Your task to perform on an android device: See recent photos Image 0: 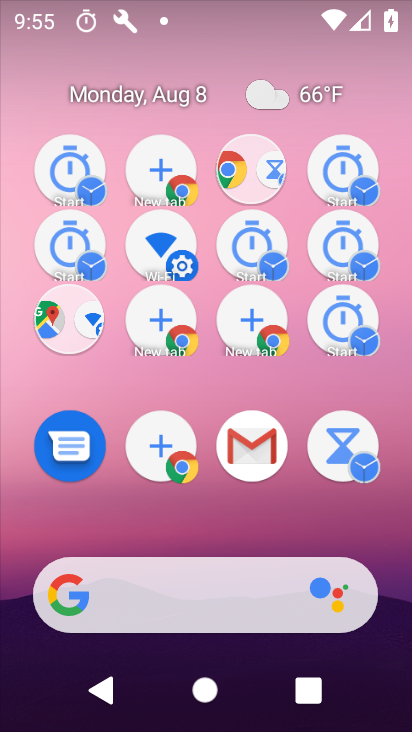
Step 0: click (192, 97)
Your task to perform on an android device: See recent photos Image 1: 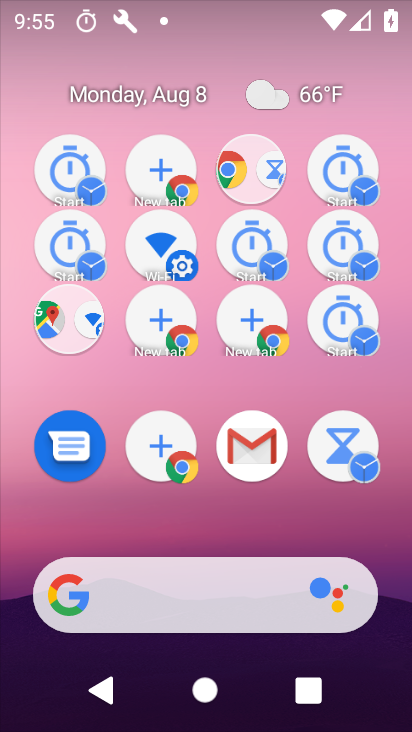
Step 1: drag from (218, 410) to (195, 119)
Your task to perform on an android device: See recent photos Image 2: 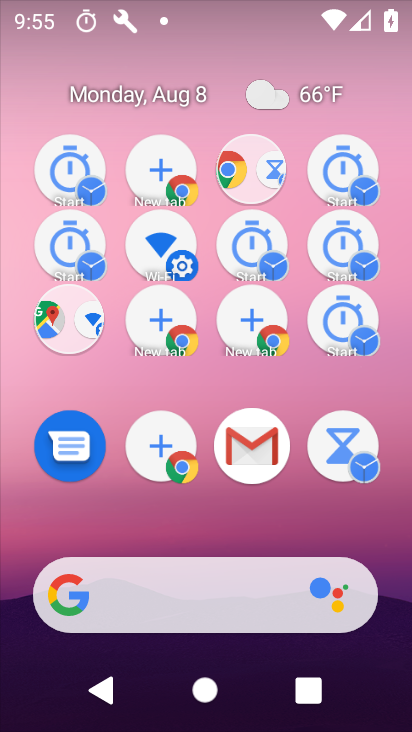
Step 2: drag from (248, 386) to (240, 188)
Your task to perform on an android device: See recent photos Image 3: 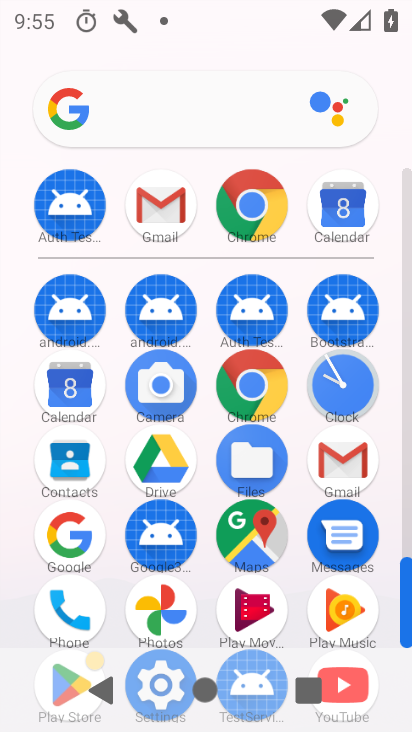
Step 3: click (177, 599)
Your task to perform on an android device: See recent photos Image 4: 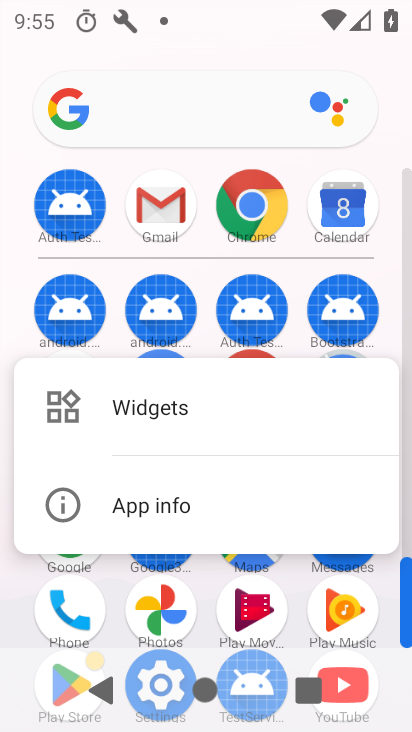
Step 4: click (166, 606)
Your task to perform on an android device: See recent photos Image 5: 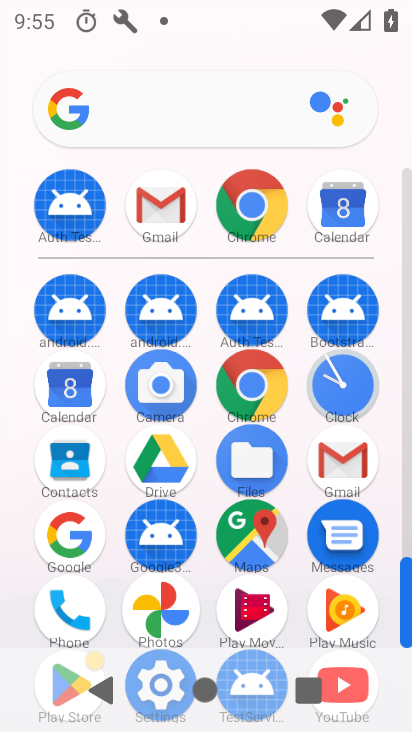
Step 5: click (166, 607)
Your task to perform on an android device: See recent photos Image 6: 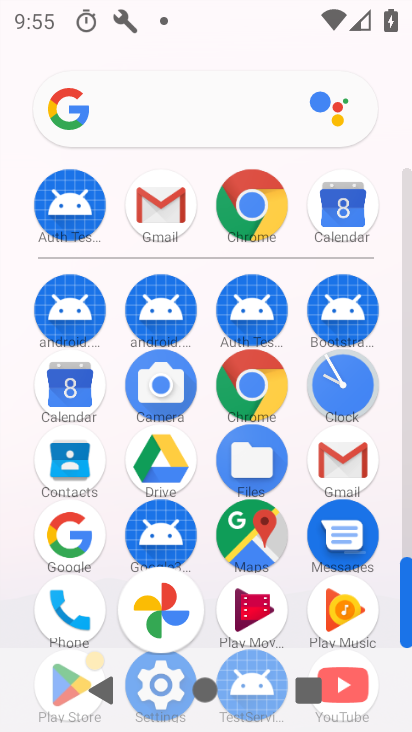
Step 6: click (179, 602)
Your task to perform on an android device: See recent photos Image 7: 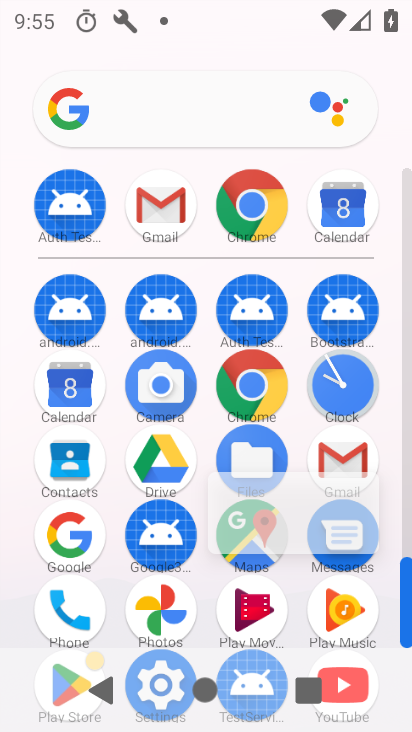
Step 7: click (173, 608)
Your task to perform on an android device: See recent photos Image 8: 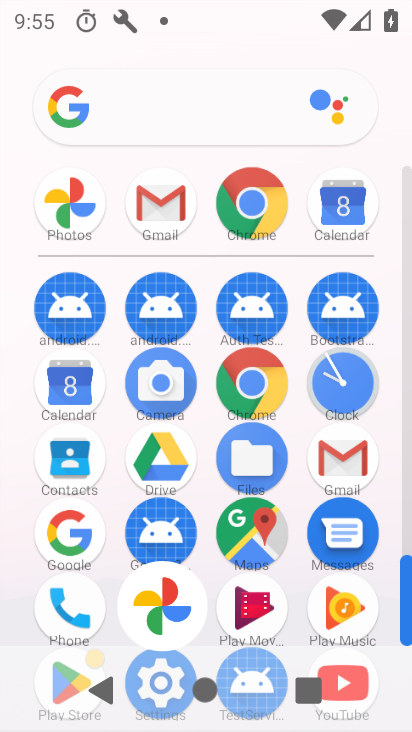
Step 8: click (138, 605)
Your task to perform on an android device: See recent photos Image 9: 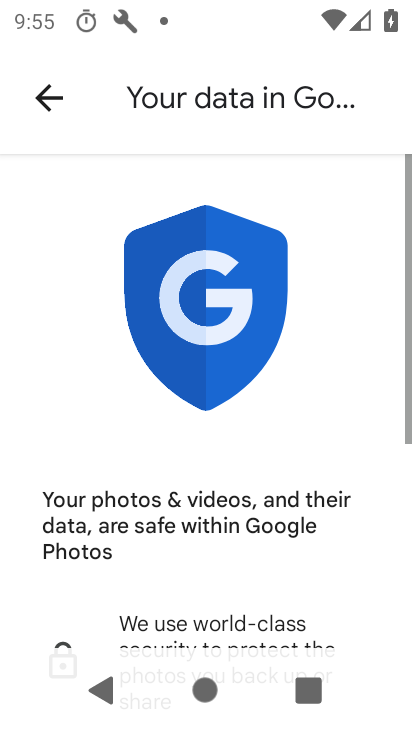
Step 9: click (139, 614)
Your task to perform on an android device: See recent photos Image 10: 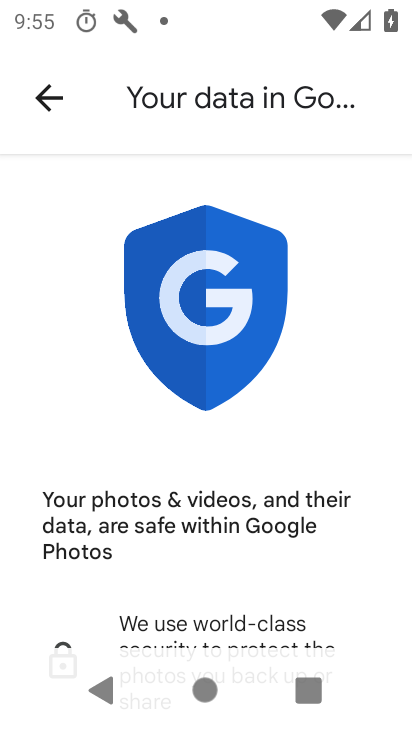
Step 10: click (139, 614)
Your task to perform on an android device: See recent photos Image 11: 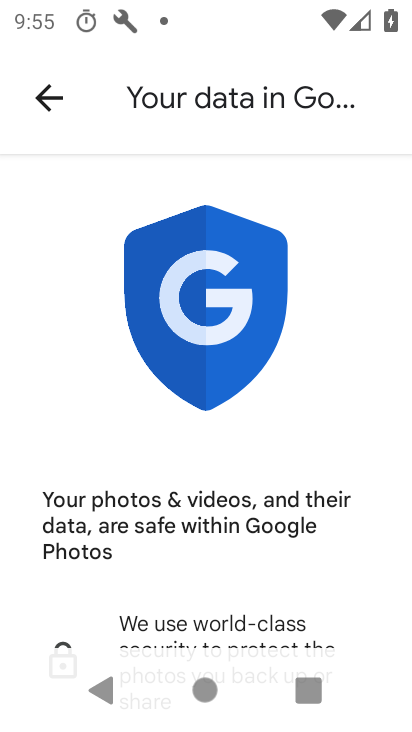
Step 11: click (42, 67)
Your task to perform on an android device: See recent photos Image 12: 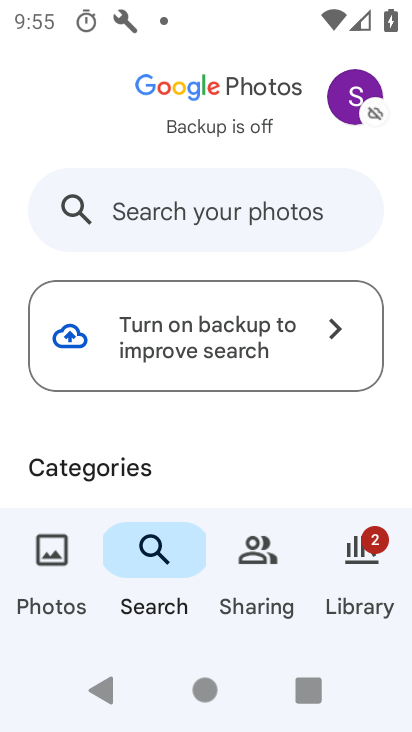
Step 12: drag from (237, 385) to (237, 174)
Your task to perform on an android device: See recent photos Image 13: 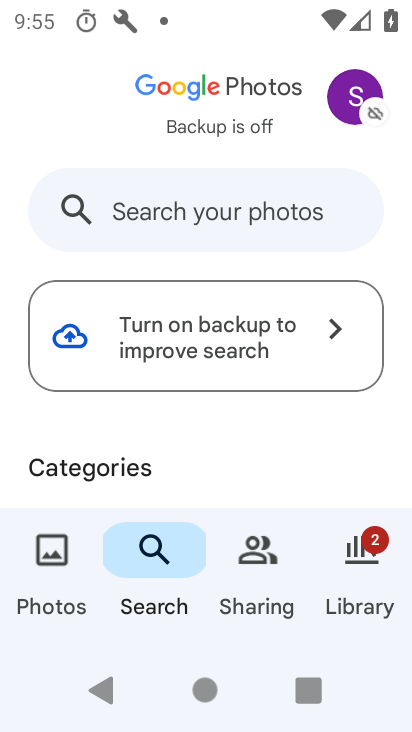
Step 13: drag from (264, 383) to (266, 252)
Your task to perform on an android device: See recent photos Image 14: 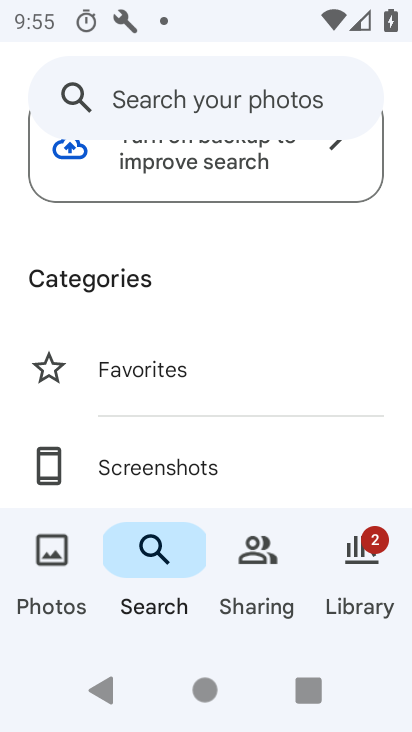
Step 14: drag from (290, 412) to (287, 195)
Your task to perform on an android device: See recent photos Image 15: 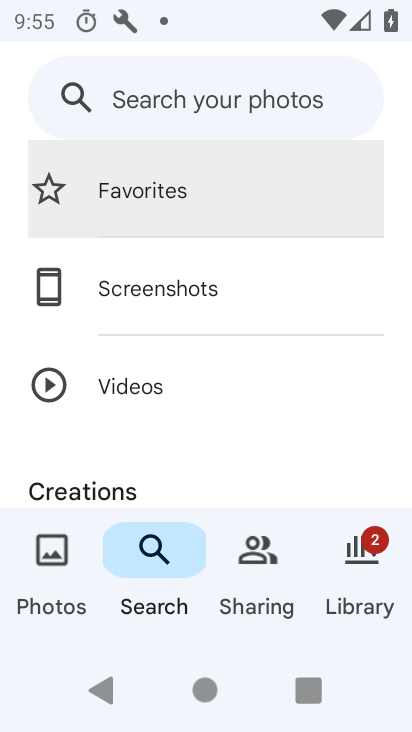
Step 15: drag from (266, 440) to (266, 208)
Your task to perform on an android device: See recent photos Image 16: 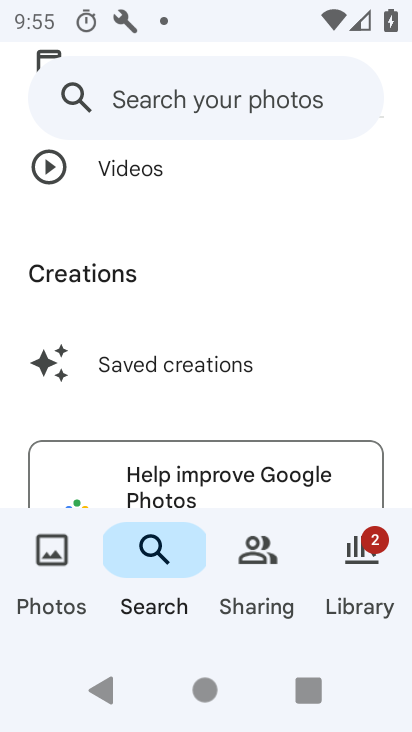
Step 16: click (83, 370)
Your task to perform on an android device: See recent photos Image 17: 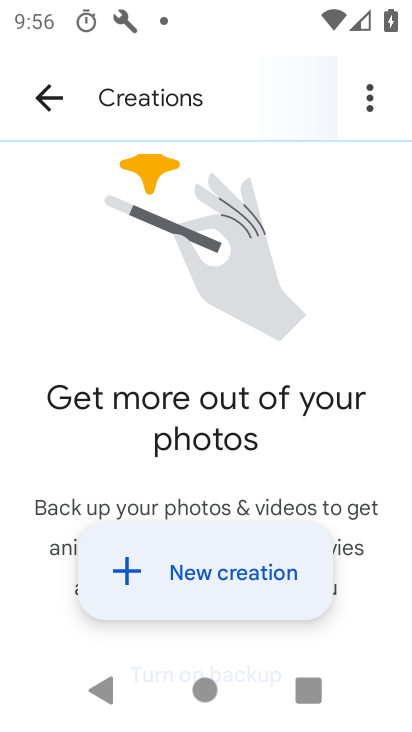
Step 17: click (232, 576)
Your task to perform on an android device: See recent photos Image 18: 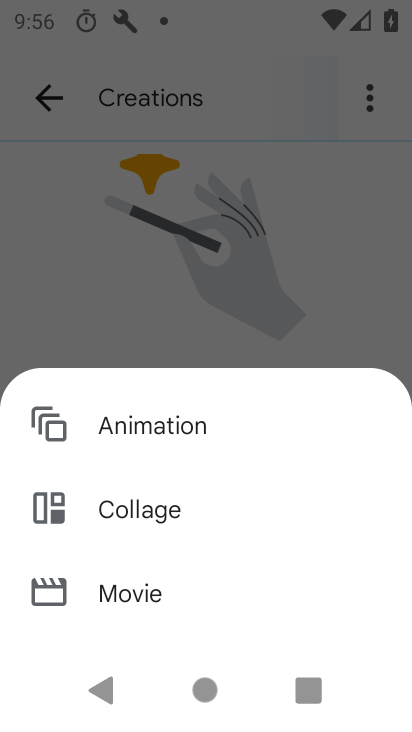
Step 18: click (334, 251)
Your task to perform on an android device: See recent photos Image 19: 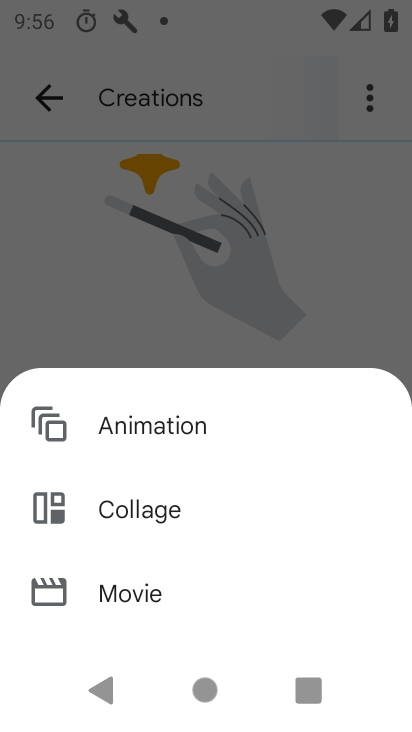
Step 19: click (335, 251)
Your task to perform on an android device: See recent photos Image 20: 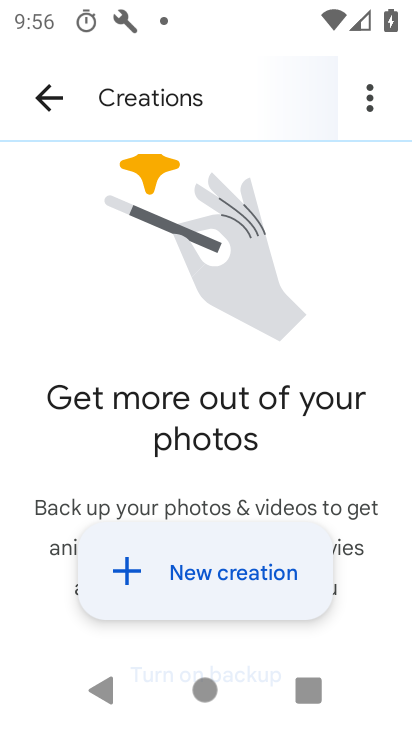
Step 20: task complete